Your task to perform on an android device: Open Android settings Image 0: 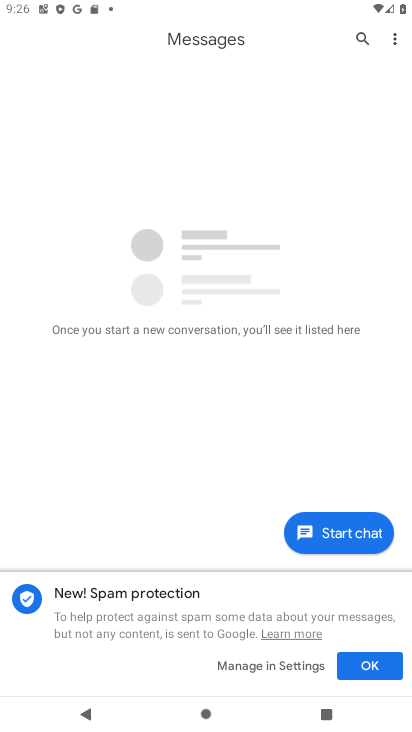
Step 0: press home button
Your task to perform on an android device: Open Android settings Image 1: 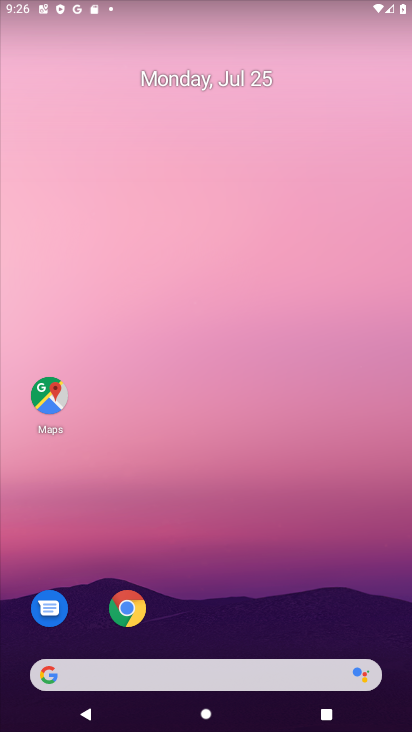
Step 1: drag from (184, 599) to (198, 150)
Your task to perform on an android device: Open Android settings Image 2: 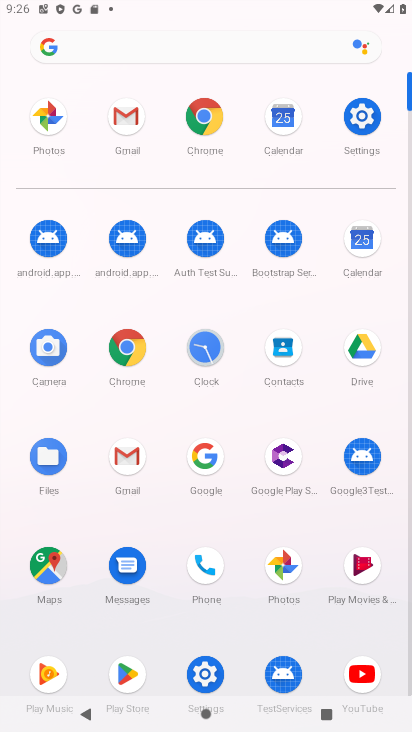
Step 2: click (365, 111)
Your task to perform on an android device: Open Android settings Image 3: 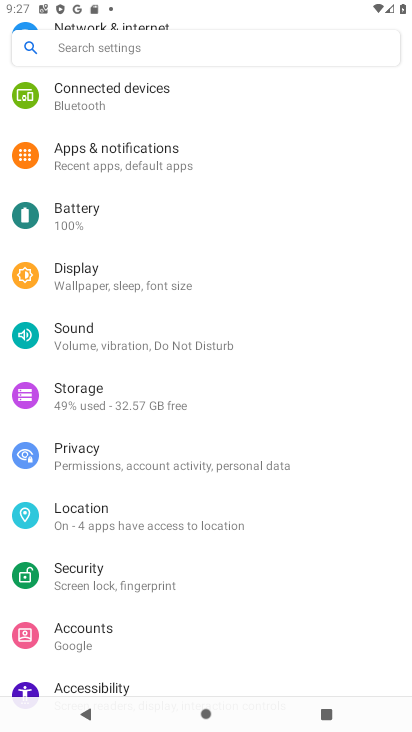
Step 3: task complete